Your task to perform on an android device: visit the assistant section in the google photos Image 0: 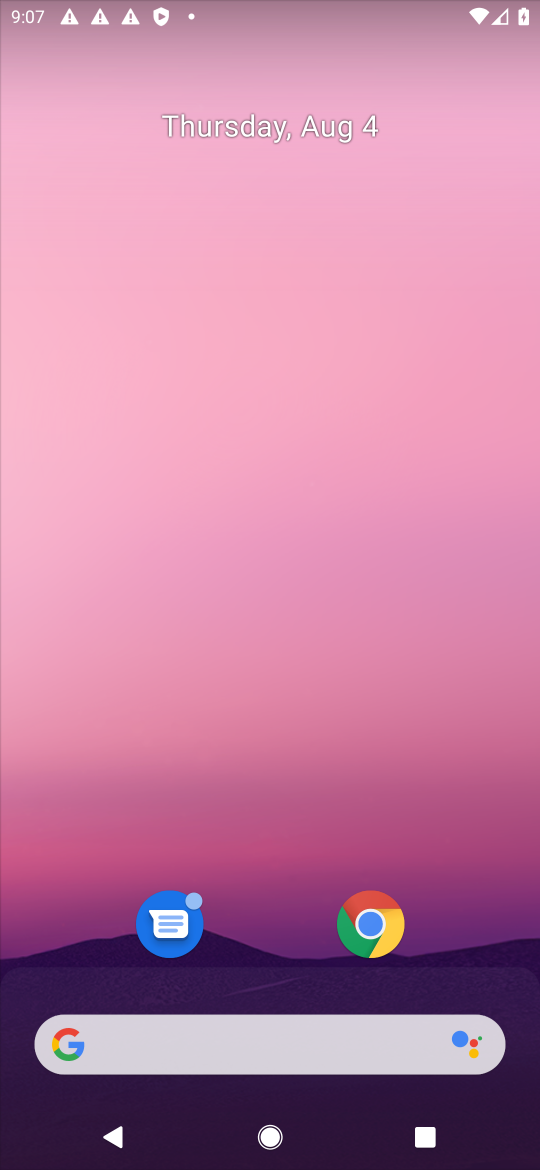
Step 0: drag from (359, 430) to (366, 333)
Your task to perform on an android device: visit the assistant section in the google photos Image 1: 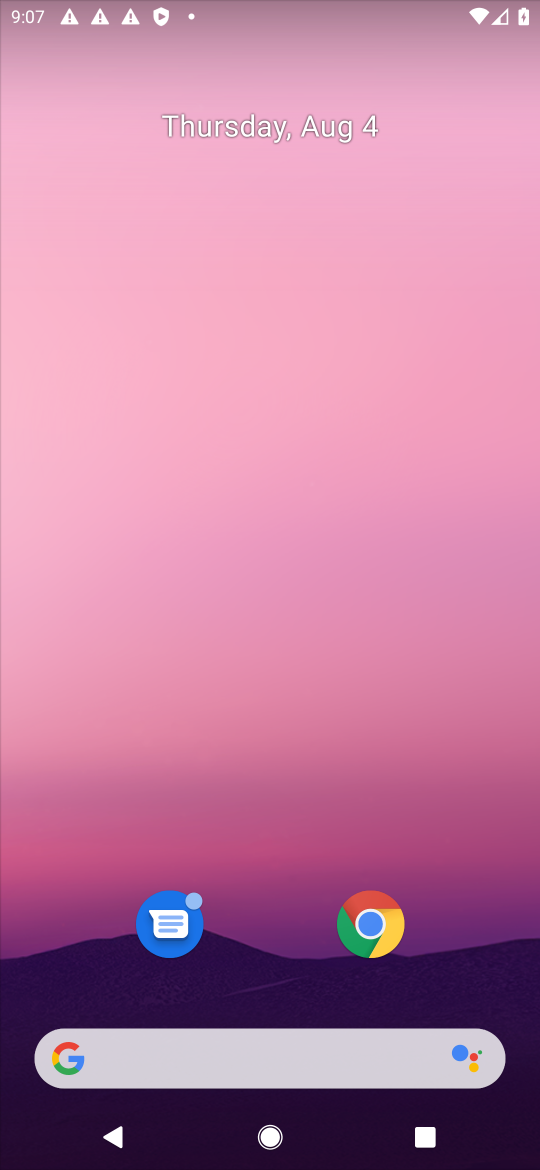
Step 1: drag from (262, 850) to (323, 345)
Your task to perform on an android device: visit the assistant section in the google photos Image 2: 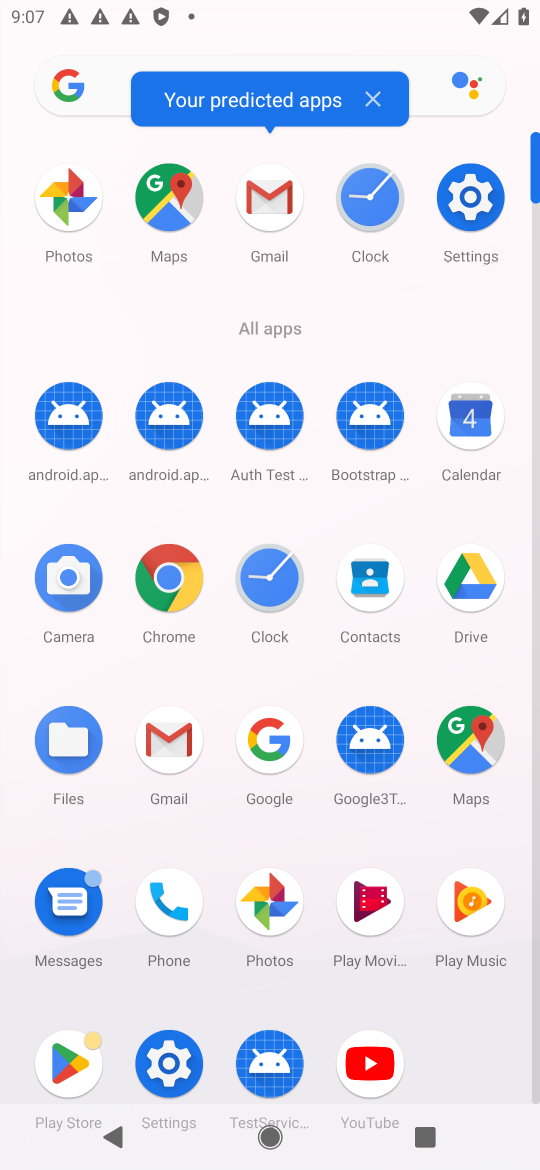
Step 2: click (253, 879)
Your task to perform on an android device: visit the assistant section in the google photos Image 3: 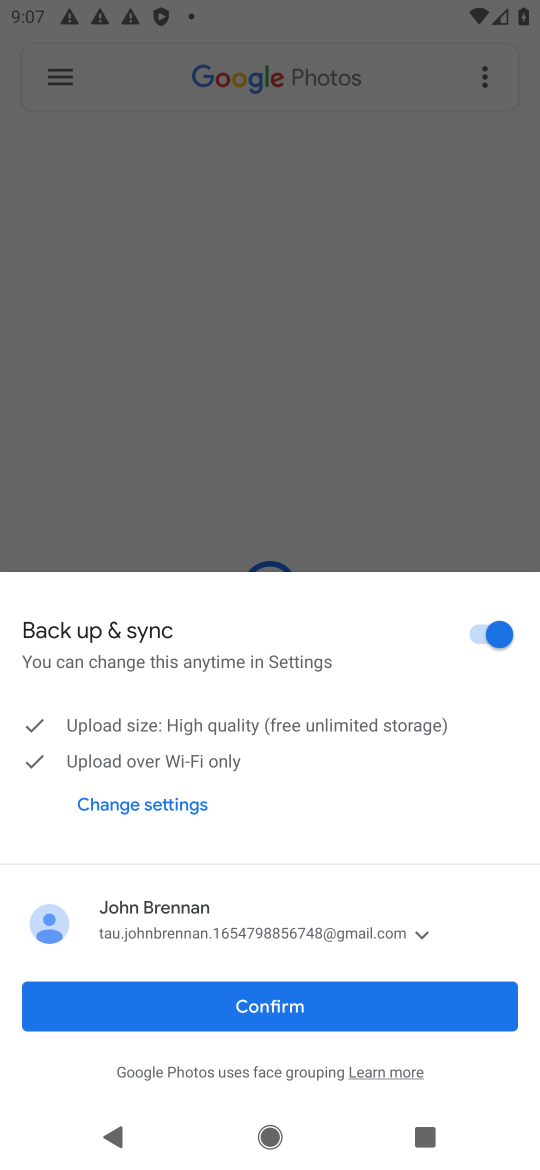
Step 3: click (247, 997)
Your task to perform on an android device: visit the assistant section in the google photos Image 4: 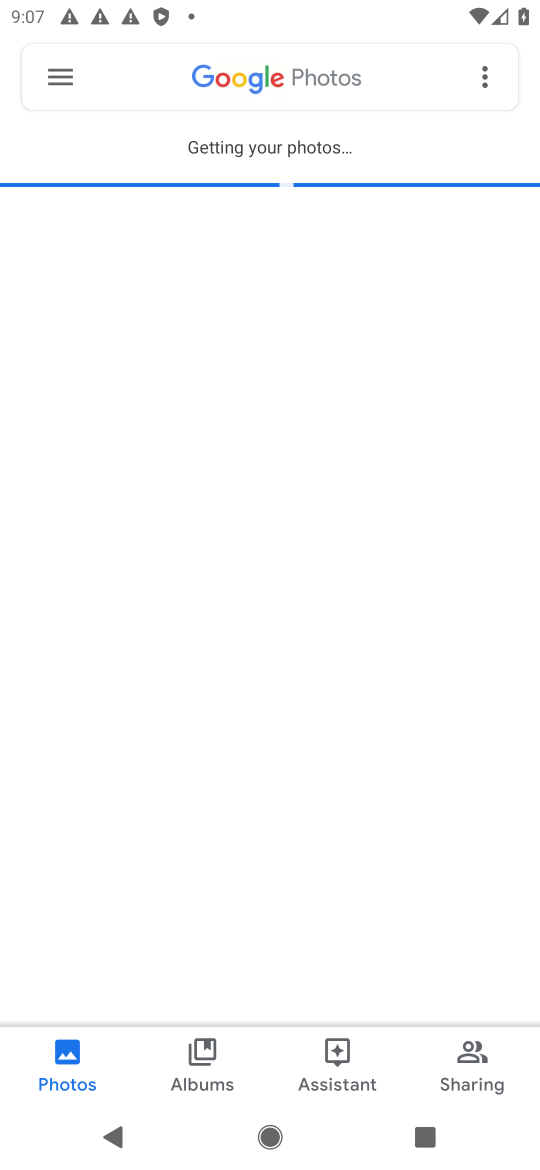
Step 4: click (335, 1065)
Your task to perform on an android device: visit the assistant section in the google photos Image 5: 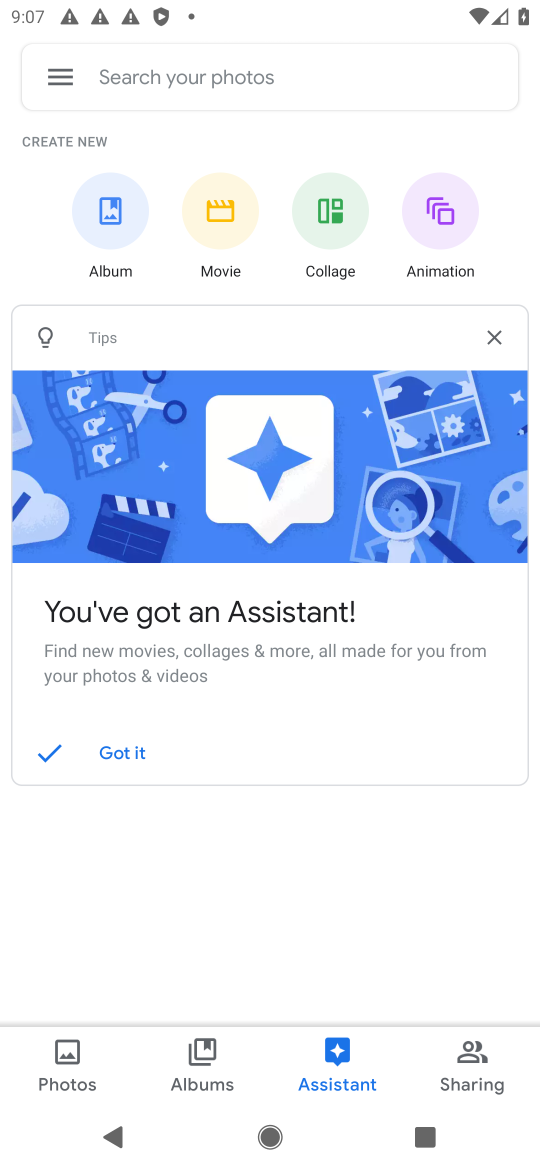
Step 5: task complete